Your task to perform on an android device: change alarm snooze length Image 0: 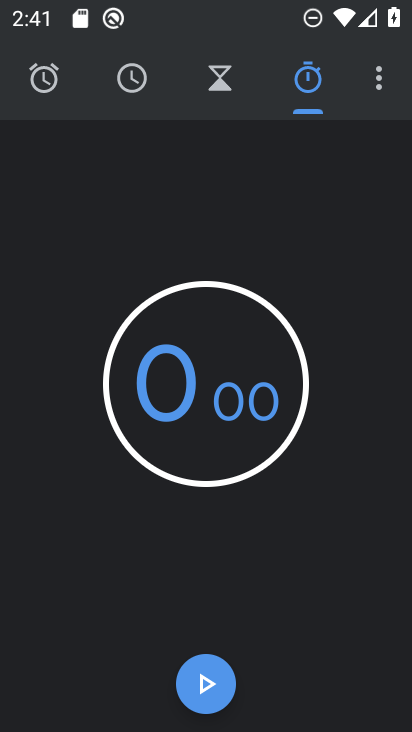
Step 0: press home button
Your task to perform on an android device: change alarm snooze length Image 1: 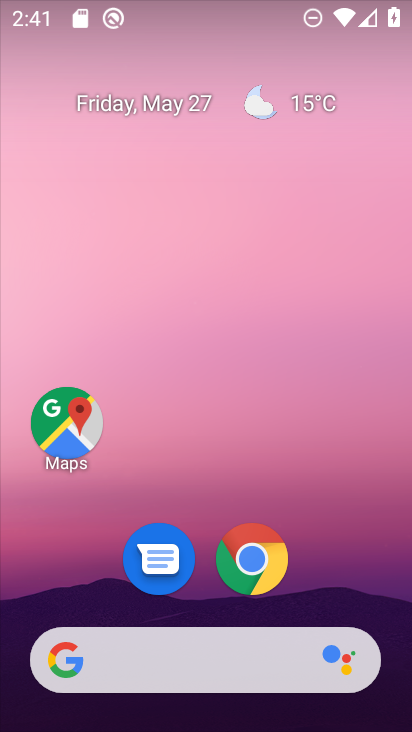
Step 1: drag from (310, 583) to (335, 0)
Your task to perform on an android device: change alarm snooze length Image 2: 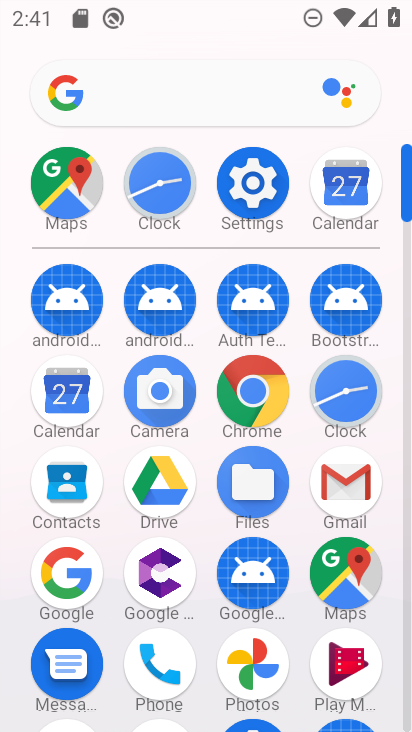
Step 2: click (329, 412)
Your task to perform on an android device: change alarm snooze length Image 3: 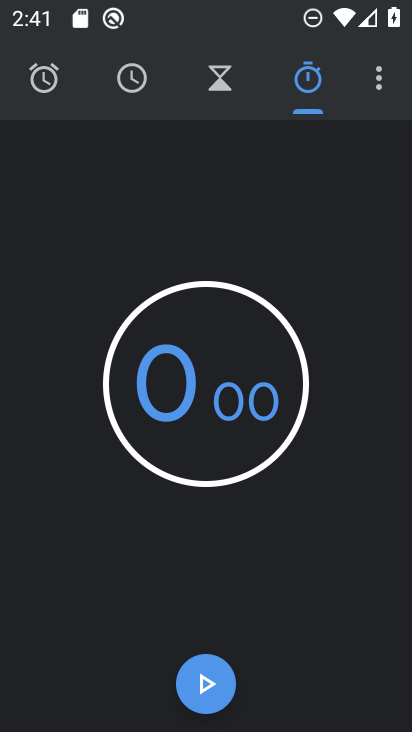
Step 3: click (374, 85)
Your task to perform on an android device: change alarm snooze length Image 4: 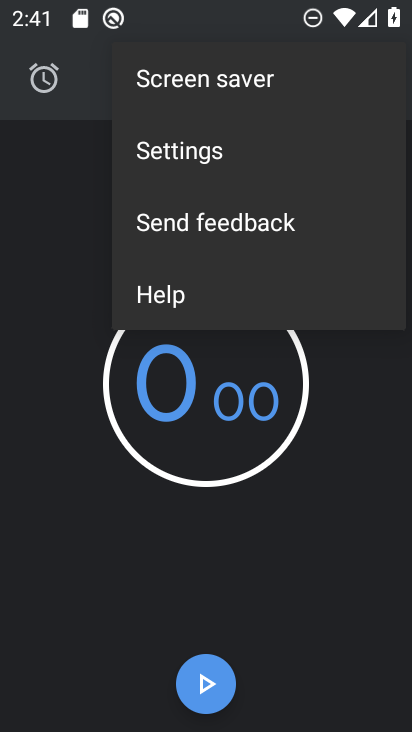
Step 4: click (219, 165)
Your task to perform on an android device: change alarm snooze length Image 5: 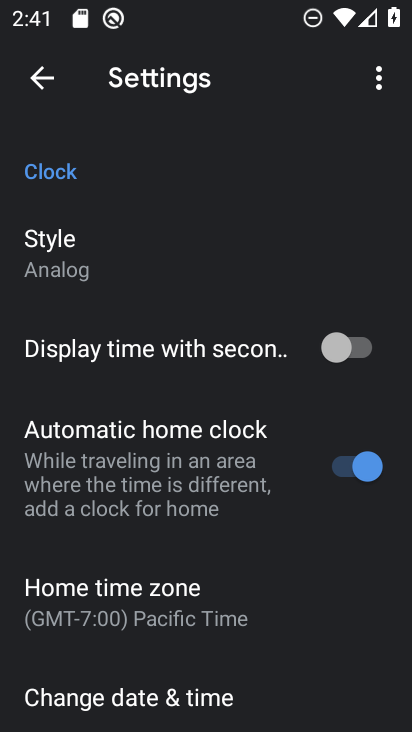
Step 5: drag from (270, 632) to (304, 124)
Your task to perform on an android device: change alarm snooze length Image 6: 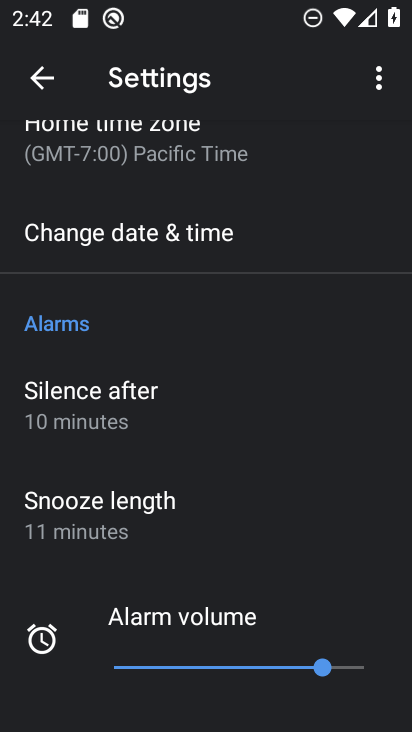
Step 6: click (172, 507)
Your task to perform on an android device: change alarm snooze length Image 7: 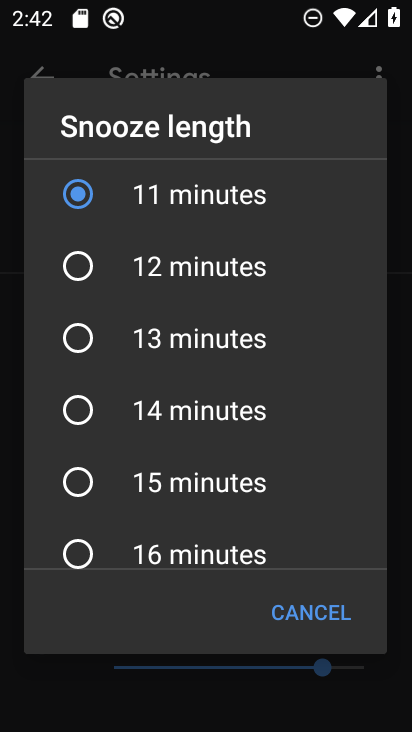
Step 7: click (80, 336)
Your task to perform on an android device: change alarm snooze length Image 8: 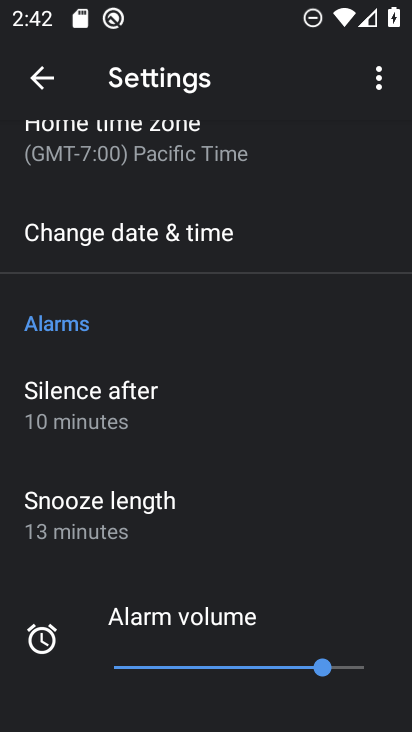
Step 8: task complete